Your task to perform on an android device: turn on bluetooth scan Image 0: 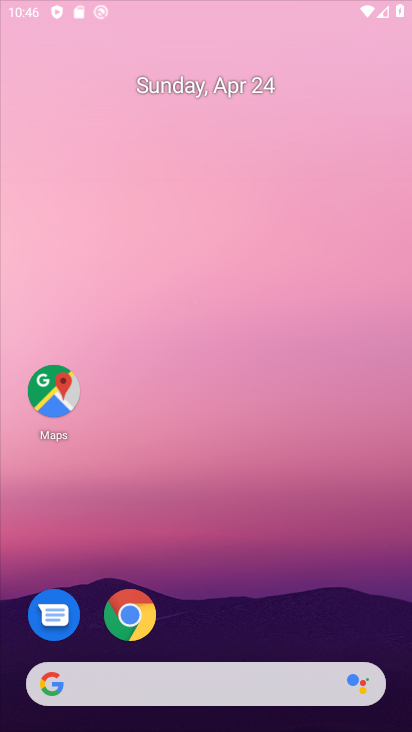
Step 0: click (213, 35)
Your task to perform on an android device: turn on bluetooth scan Image 1: 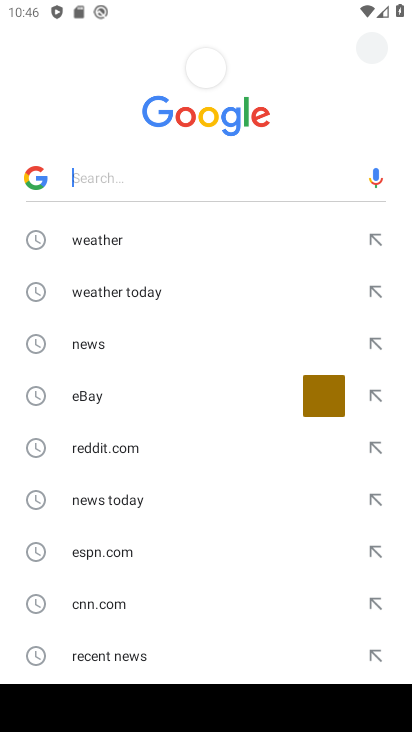
Step 1: press home button
Your task to perform on an android device: turn on bluetooth scan Image 2: 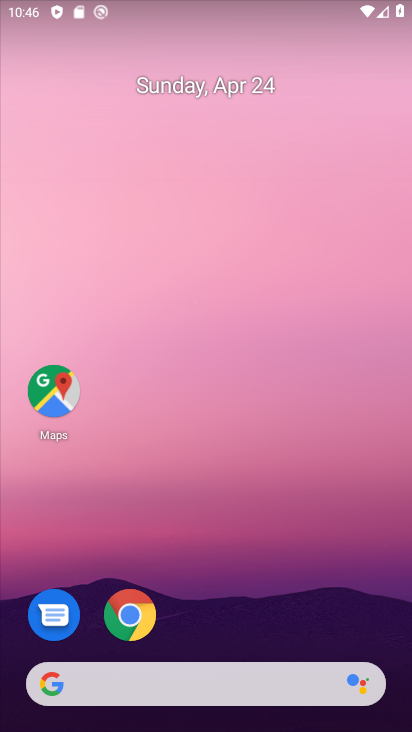
Step 2: drag from (237, 459) to (263, 84)
Your task to perform on an android device: turn on bluetooth scan Image 3: 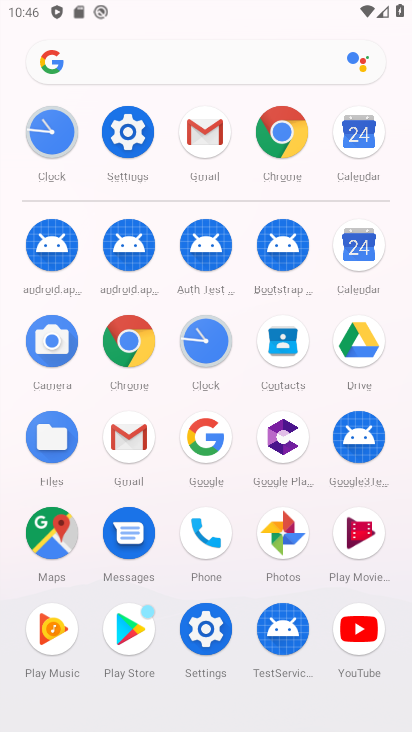
Step 3: click (123, 124)
Your task to perform on an android device: turn on bluetooth scan Image 4: 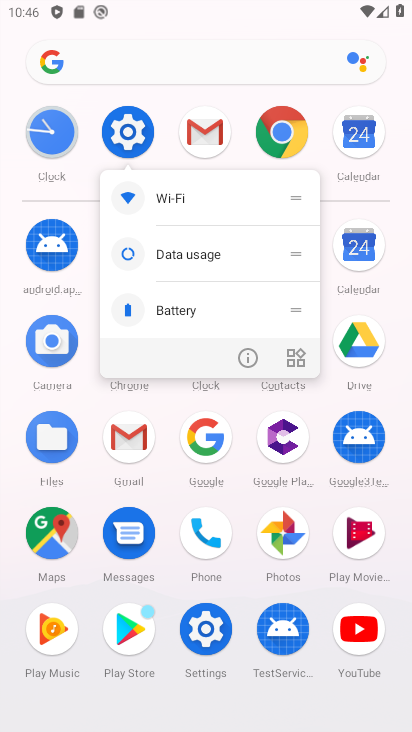
Step 4: click (123, 124)
Your task to perform on an android device: turn on bluetooth scan Image 5: 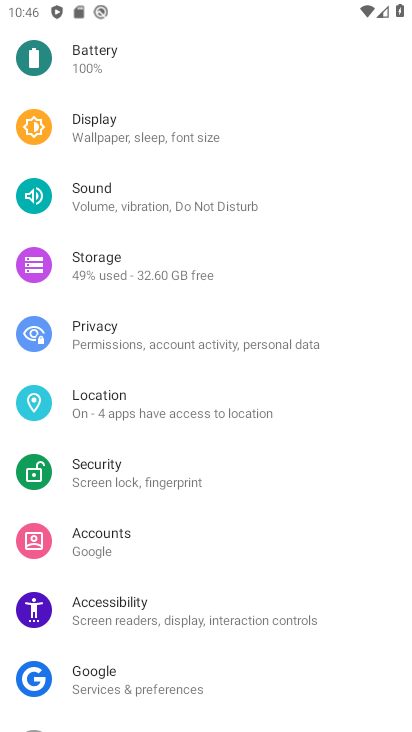
Step 5: click (144, 391)
Your task to perform on an android device: turn on bluetooth scan Image 6: 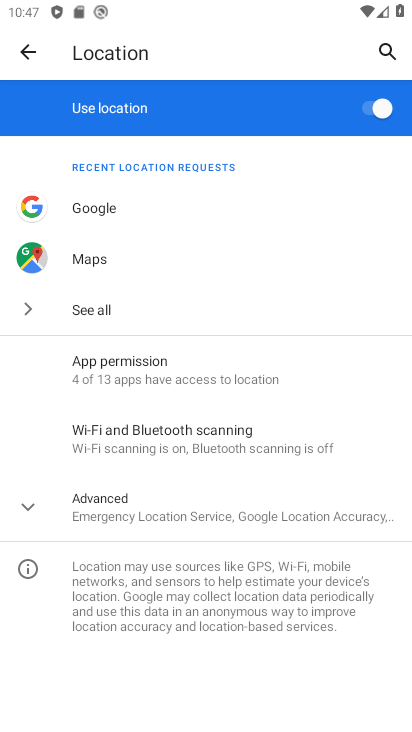
Step 6: click (203, 431)
Your task to perform on an android device: turn on bluetooth scan Image 7: 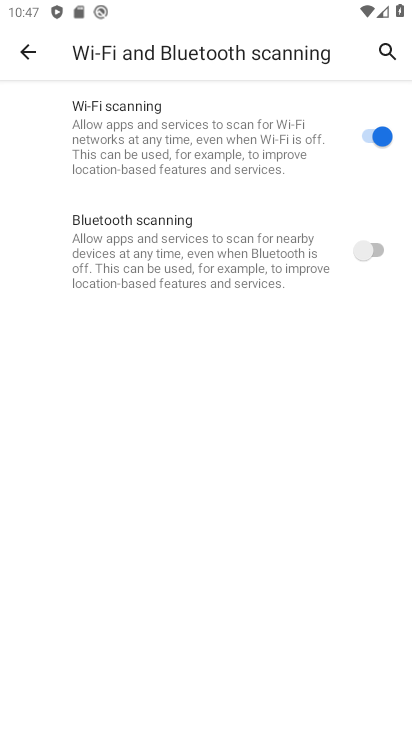
Step 7: click (368, 250)
Your task to perform on an android device: turn on bluetooth scan Image 8: 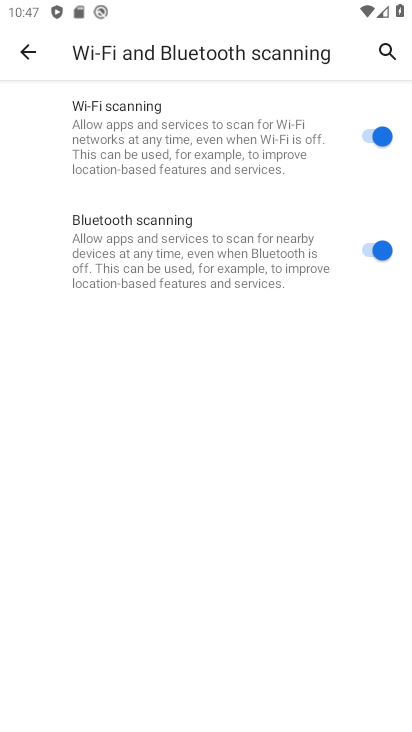
Step 8: task complete